Your task to perform on an android device: Go to Yahoo.com Image 0: 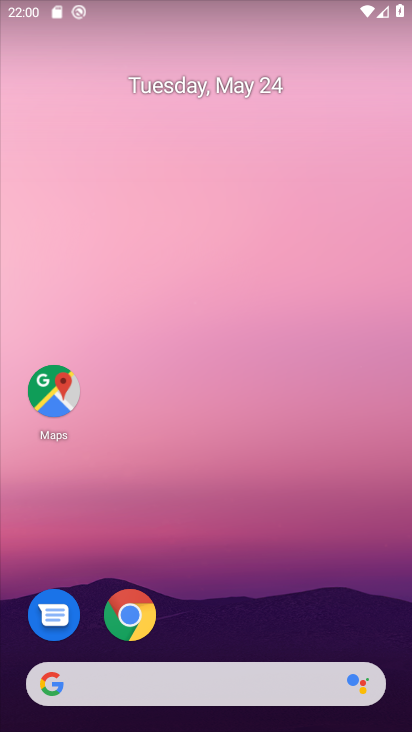
Step 0: click (136, 608)
Your task to perform on an android device: Go to Yahoo.com Image 1: 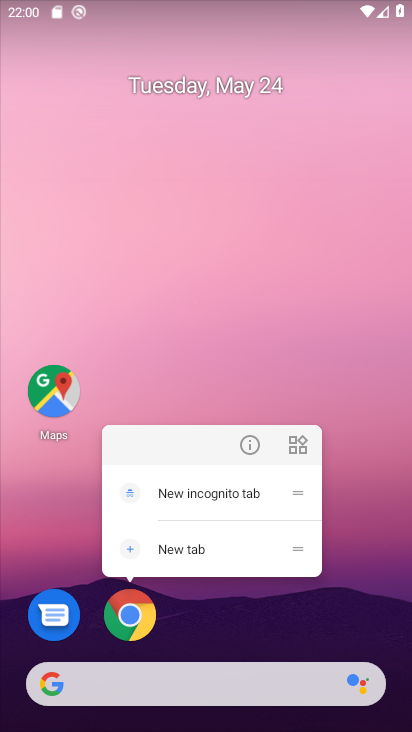
Step 1: click (121, 608)
Your task to perform on an android device: Go to Yahoo.com Image 2: 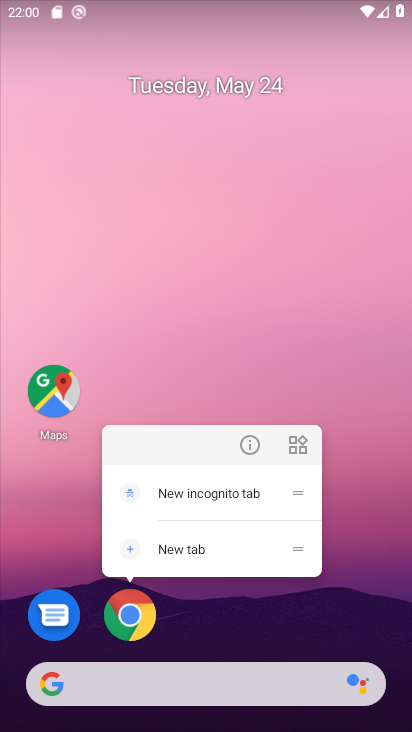
Step 2: click (120, 601)
Your task to perform on an android device: Go to Yahoo.com Image 3: 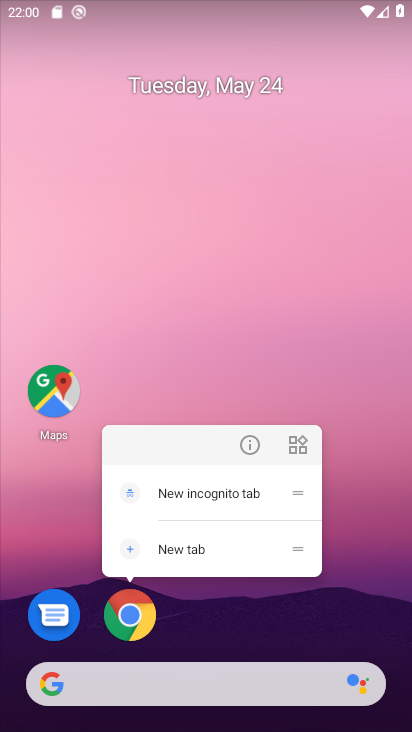
Step 3: click (125, 611)
Your task to perform on an android device: Go to Yahoo.com Image 4: 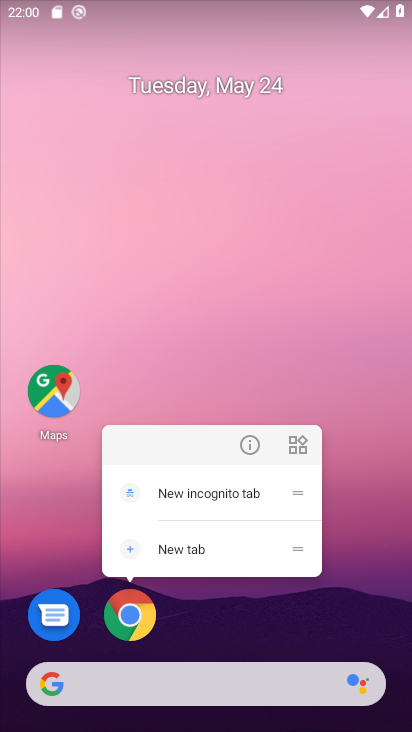
Step 4: click (126, 612)
Your task to perform on an android device: Go to Yahoo.com Image 5: 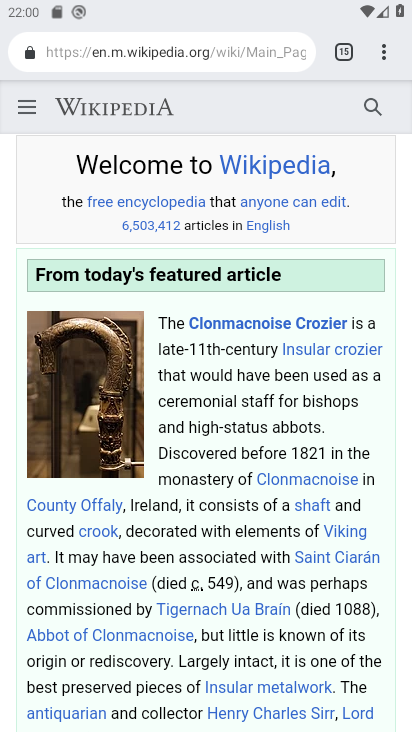
Step 5: click (388, 42)
Your task to perform on an android device: Go to Yahoo.com Image 6: 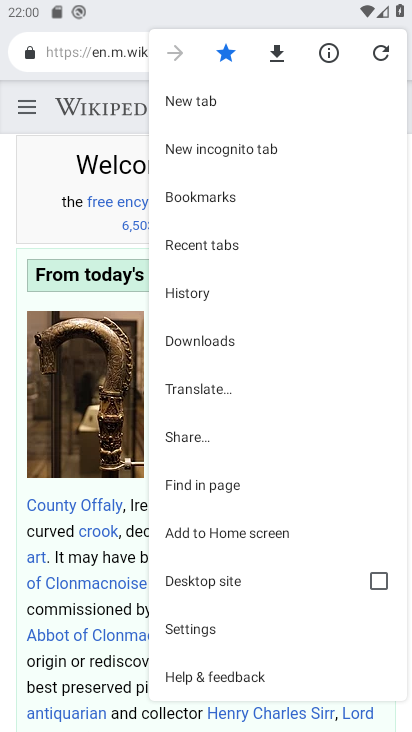
Step 6: drag from (211, 616) to (278, 83)
Your task to perform on an android device: Go to Yahoo.com Image 7: 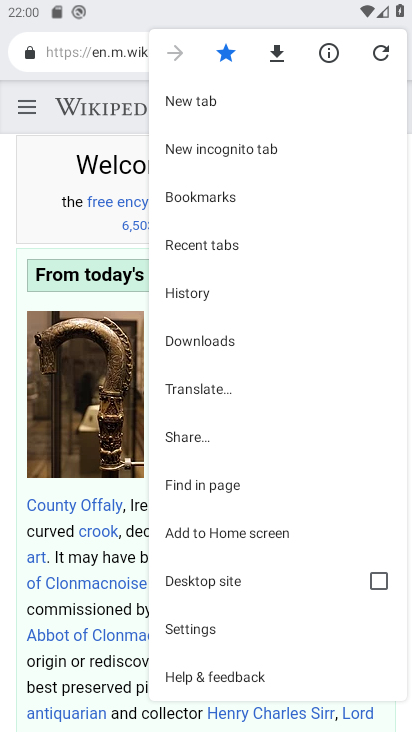
Step 7: click (205, 103)
Your task to perform on an android device: Go to Yahoo.com Image 8: 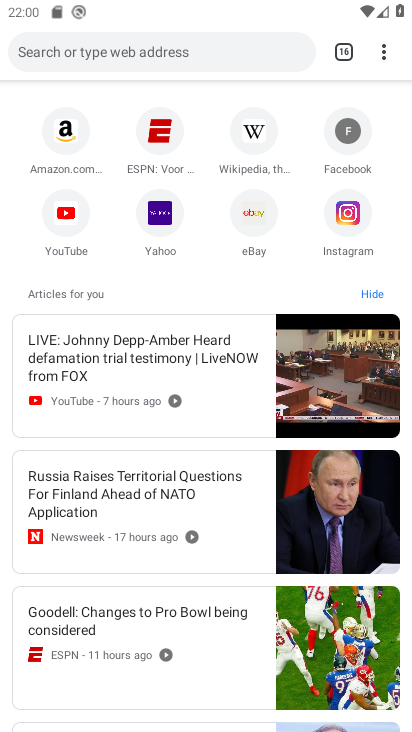
Step 8: click (162, 204)
Your task to perform on an android device: Go to Yahoo.com Image 9: 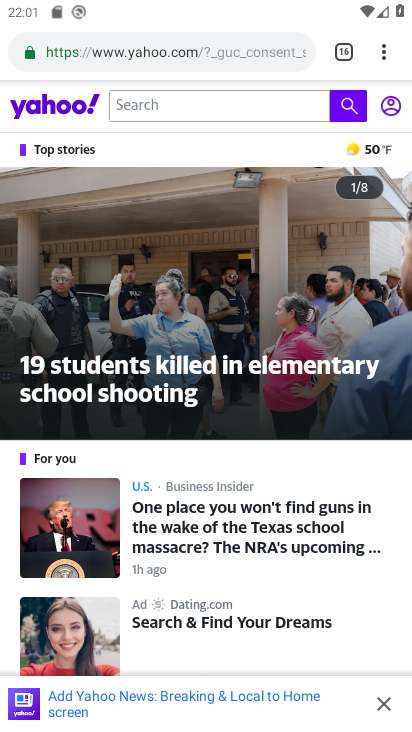
Step 9: task complete